Your task to perform on an android device: Go to Android settings Image 0: 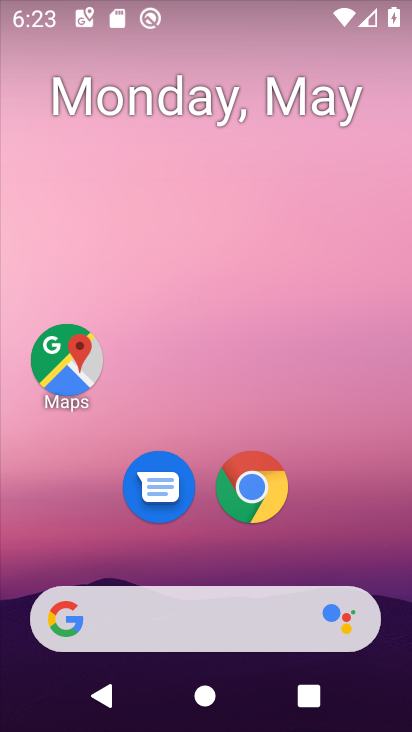
Step 0: drag from (204, 556) to (254, 115)
Your task to perform on an android device: Go to Android settings Image 1: 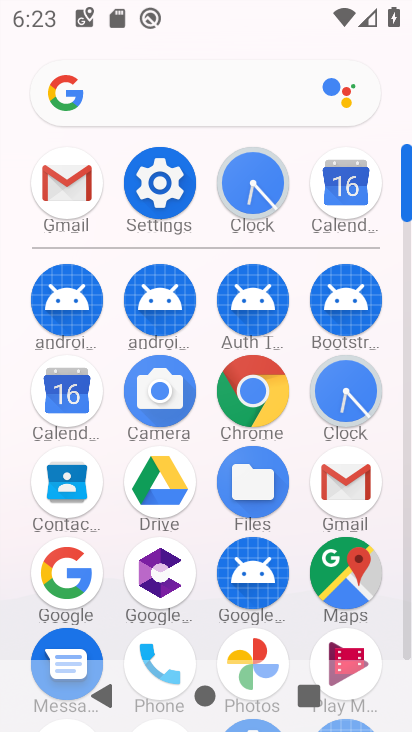
Step 1: click (165, 177)
Your task to perform on an android device: Go to Android settings Image 2: 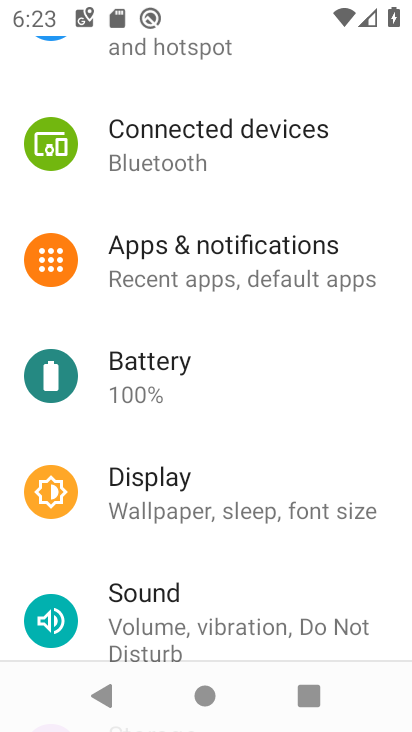
Step 2: drag from (226, 614) to (273, 143)
Your task to perform on an android device: Go to Android settings Image 3: 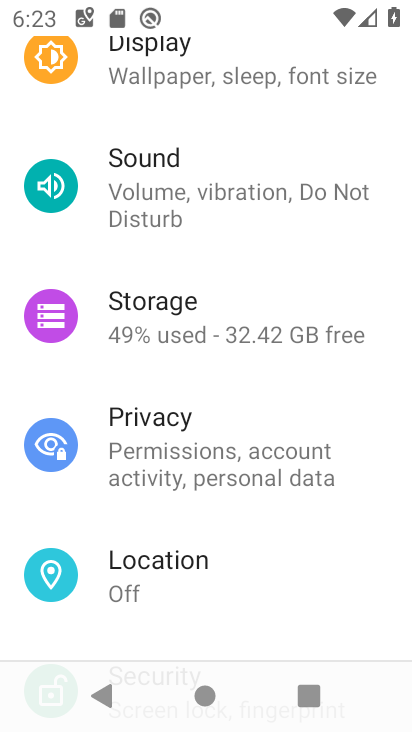
Step 3: drag from (229, 572) to (270, 140)
Your task to perform on an android device: Go to Android settings Image 4: 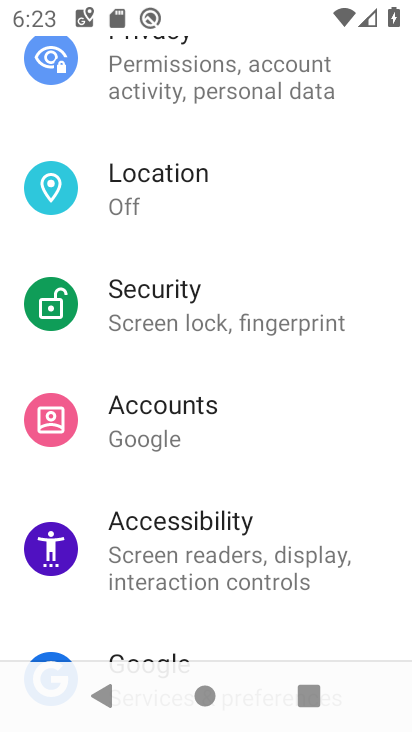
Step 4: drag from (202, 595) to (266, 97)
Your task to perform on an android device: Go to Android settings Image 5: 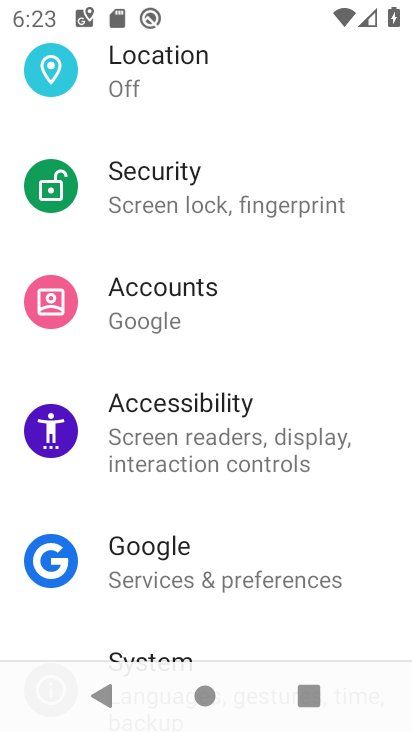
Step 5: drag from (204, 616) to (285, 110)
Your task to perform on an android device: Go to Android settings Image 6: 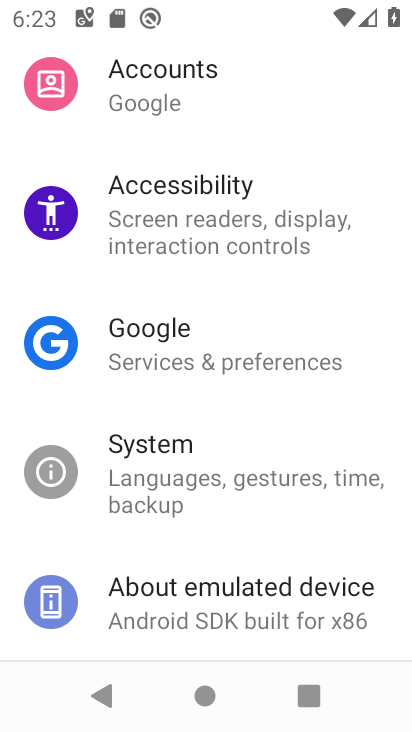
Step 6: click (236, 593)
Your task to perform on an android device: Go to Android settings Image 7: 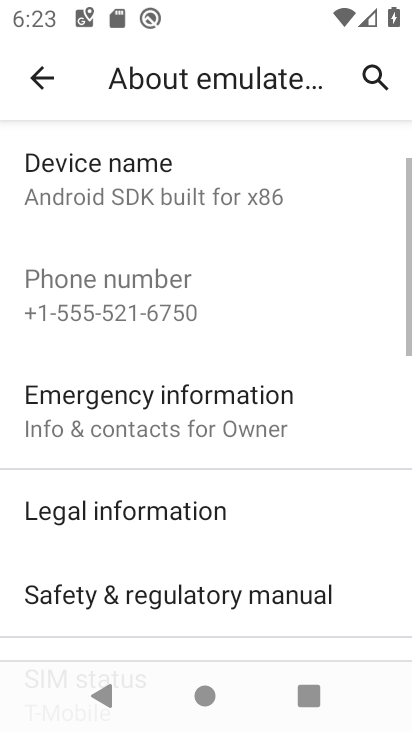
Step 7: drag from (240, 591) to (228, 191)
Your task to perform on an android device: Go to Android settings Image 8: 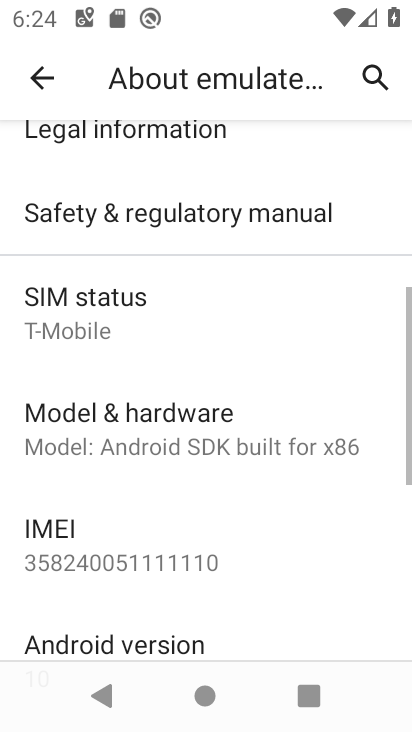
Step 8: click (211, 633)
Your task to perform on an android device: Go to Android settings Image 9: 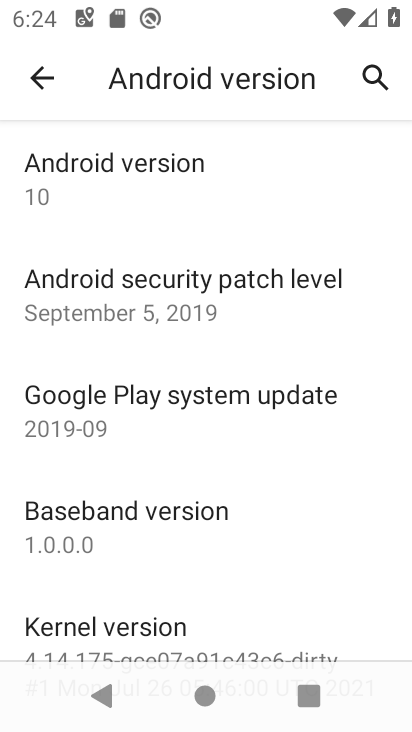
Step 9: task complete